Your task to perform on an android device: Add bose quietcomfort 35 to the cart on ebay, then select checkout. Image 0: 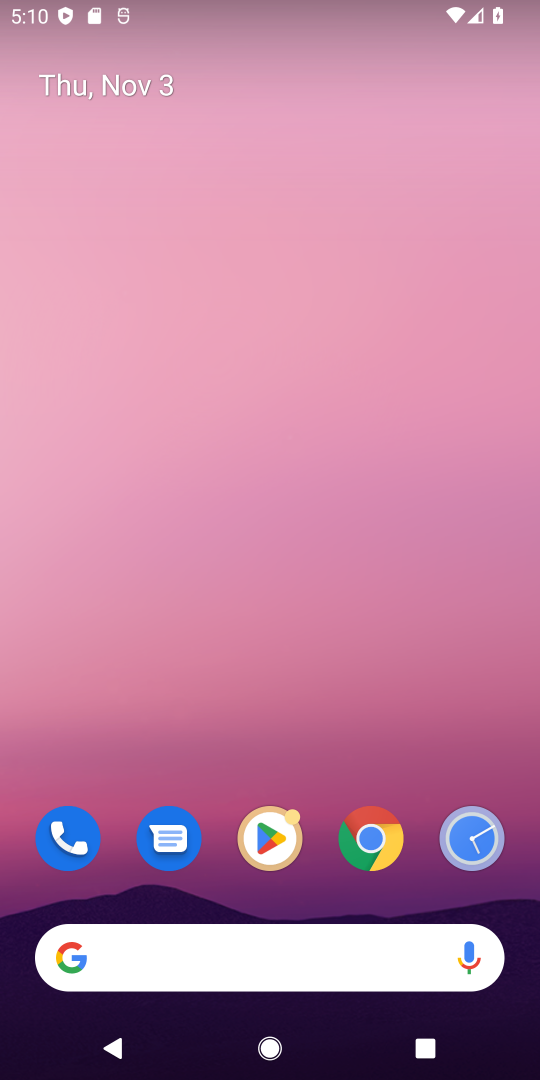
Step 0: click (377, 828)
Your task to perform on an android device: Add bose quietcomfort 35 to the cart on ebay, then select checkout. Image 1: 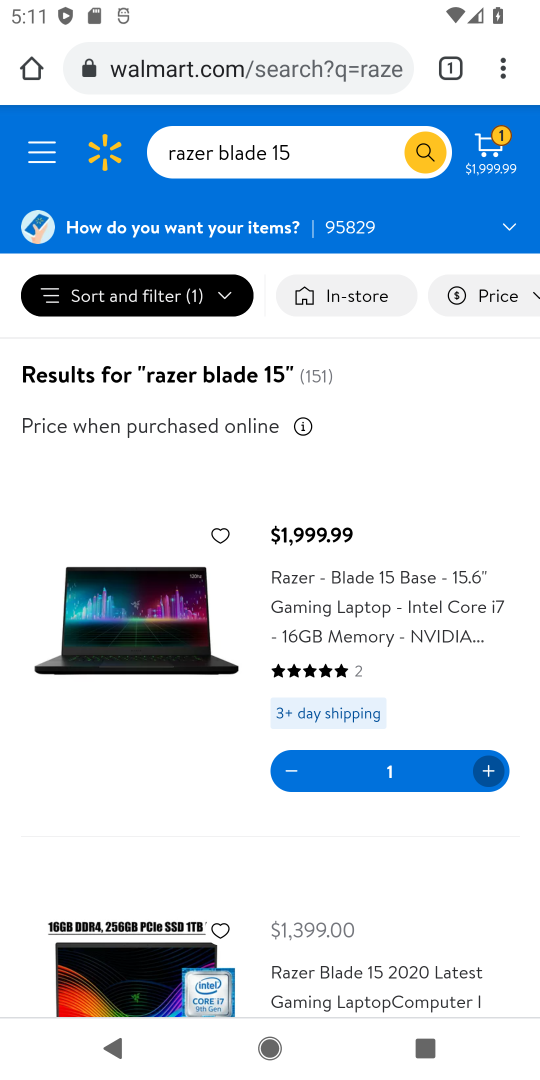
Step 1: click (461, 55)
Your task to perform on an android device: Add bose quietcomfort 35 to the cart on ebay, then select checkout. Image 2: 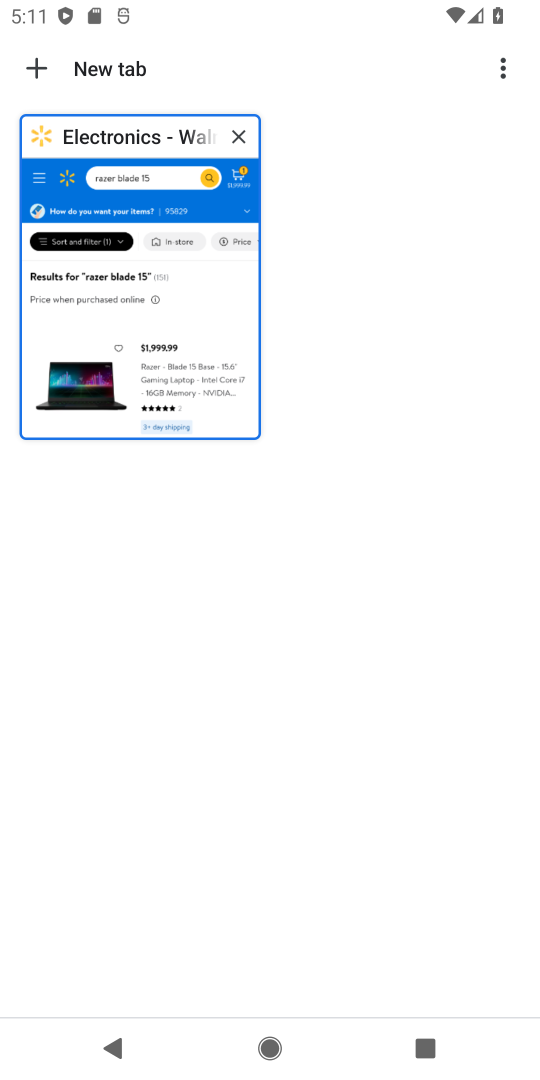
Step 2: click (30, 71)
Your task to perform on an android device: Add bose quietcomfort 35 to the cart on ebay, then select checkout. Image 3: 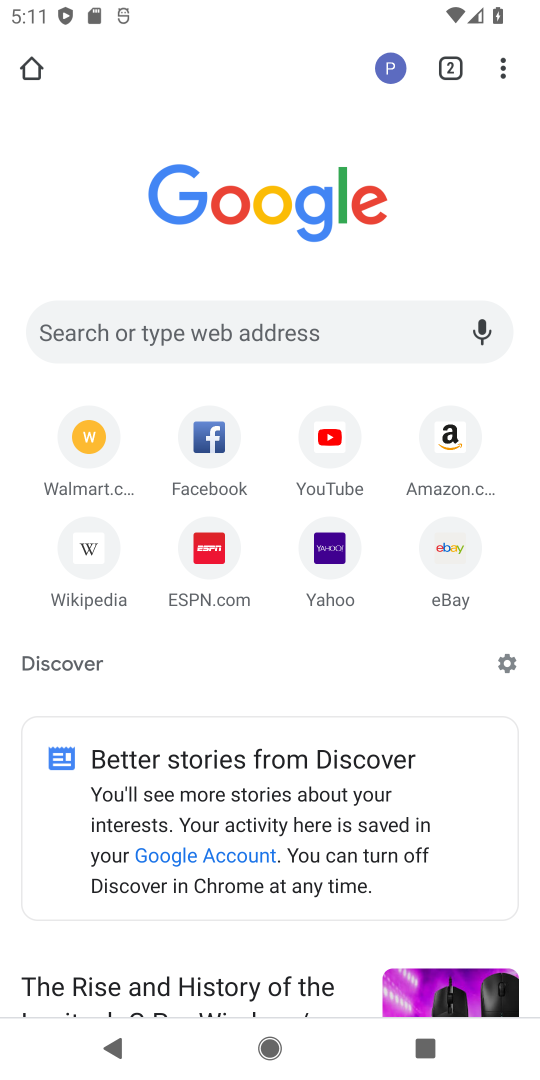
Step 3: click (247, 331)
Your task to perform on an android device: Add bose quietcomfort 35 to the cart on ebay, then select checkout. Image 4: 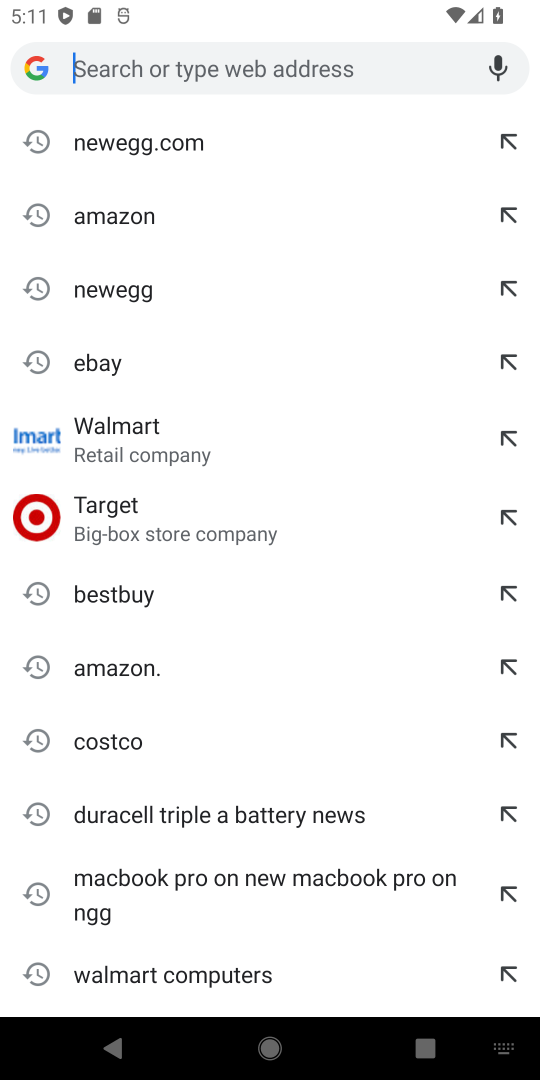
Step 4: click (99, 362)
Your task to perform on an android device: Add bose quietcomfort 35 to the cart on ebay, then select checkout. Image 5: 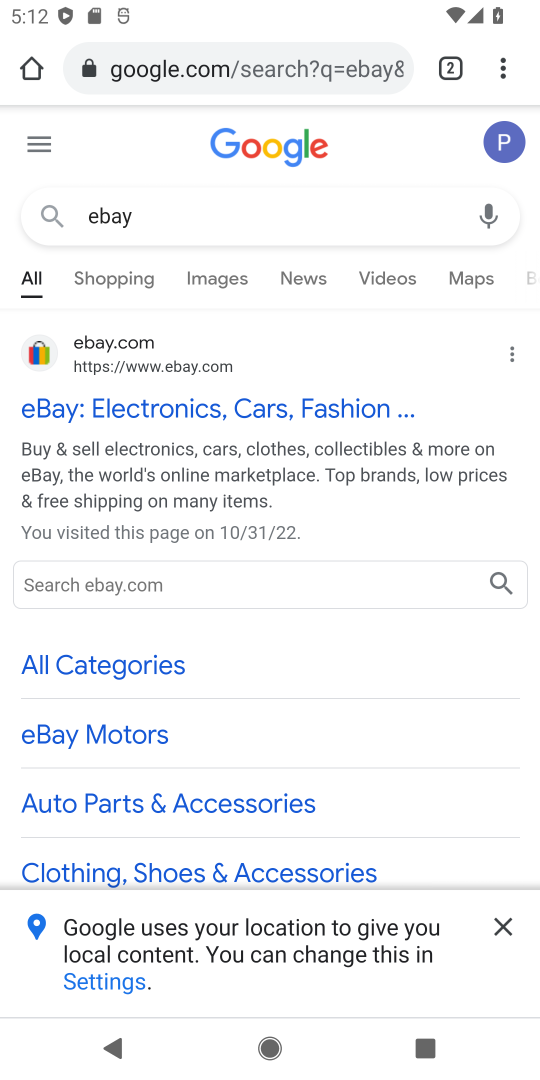
Step 5: click (60, 577)
Your task to perform on an android device: Add bose quietcomfort 35 to the cart on ebay, then select checkout. Image 6: 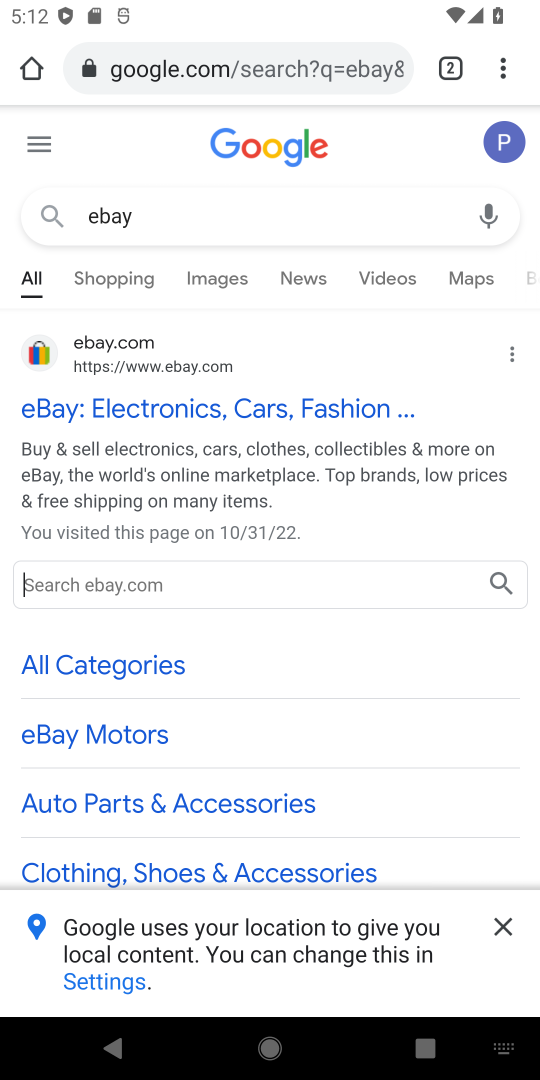
Step 6: type "bose quietcomfort 35"
Your task to perform on an android device: Add bose quietcomfort 35 to the cart on ebay, then select checkout. Image 7: 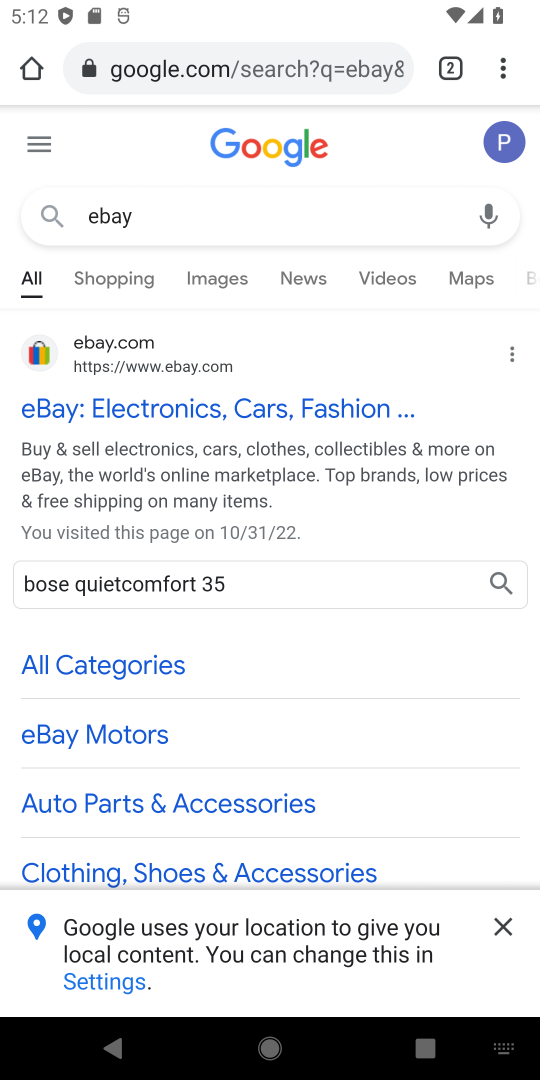
Step 7: click (500, 581)
Your task to perform on an android device: Add bose quietcomfort 35 to the cart on ebay, then select checkout. Image 8: 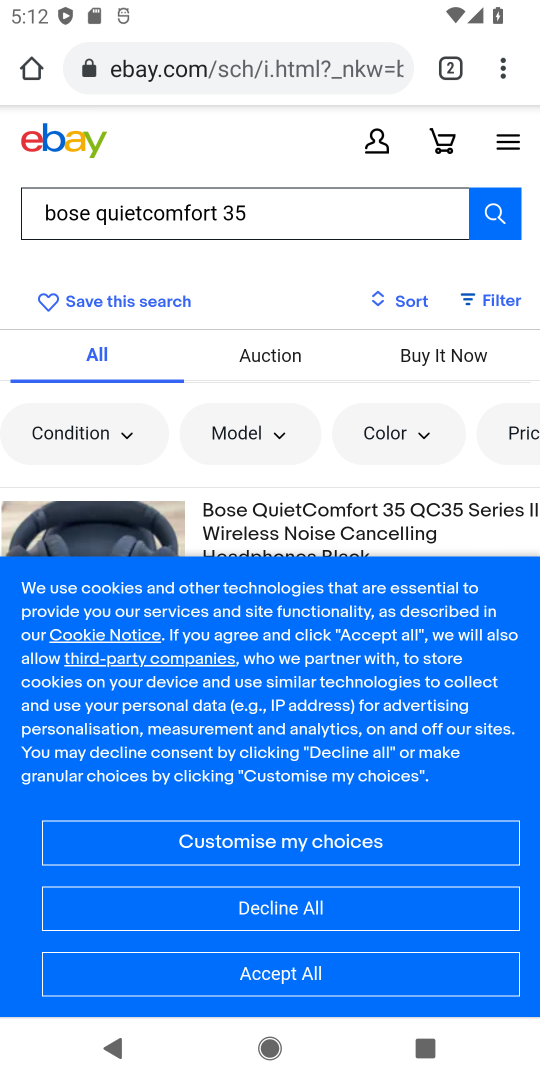
Step 8: click (343, 935)
Your task to perform on an android device: Add bose quietcomfort 35 to the cart on ebay, then select checkout. Image 9: 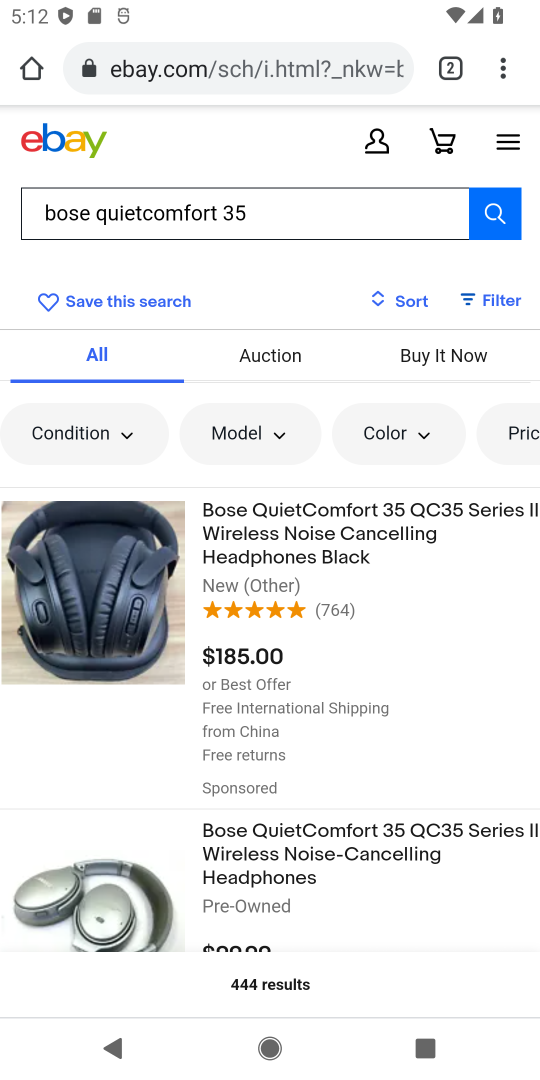
Step 9: click (347, 552)
Your task to perform on an android device: Add bose quietcomfort 35 to the cart on ebay, then select checkout. Image 10: 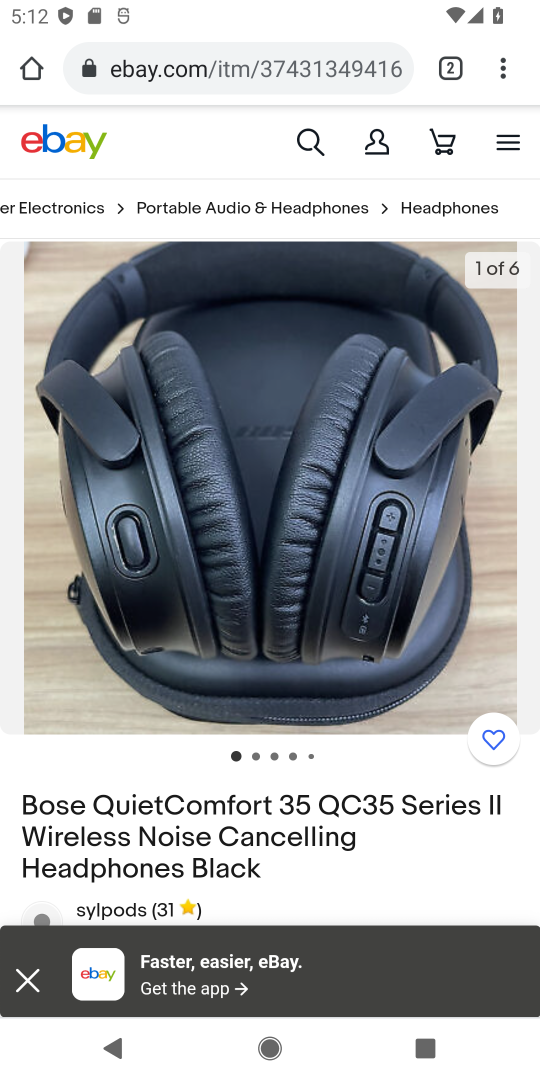
Step 10: drag from (343, 890) to (318, 270)
Your task to perform on an android device: Add bose quietcomfort 35 to the cart on ebay, then select checkout. Image 11: 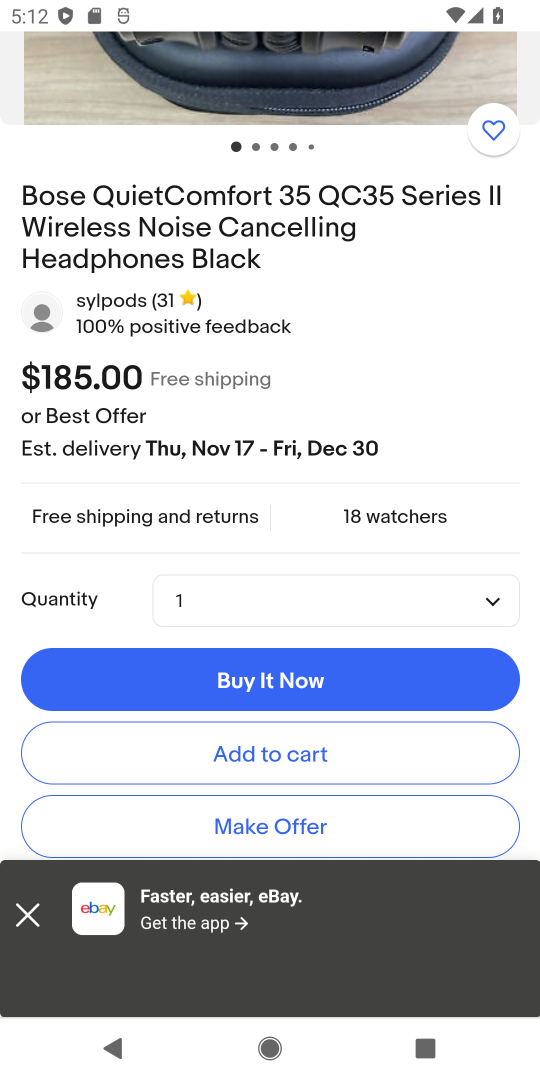
Step 11: click (290, 749)
Your task to perform on an android device: Add bose quietcomfort 35 to the cart on ebay, then select checkout. Image 12: 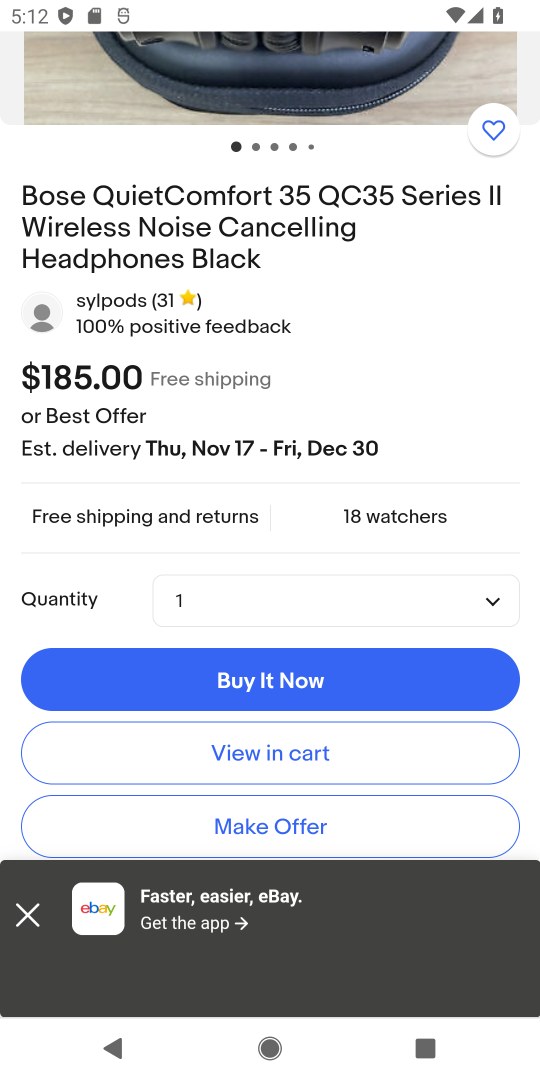
Step 12: task complete